Your task to perform on an android device: open a bookmark in the chrome app Image 0: 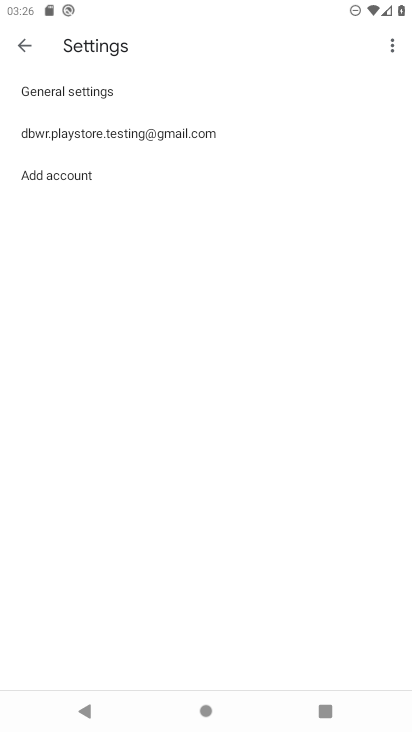
Step 0: press home button
Your task to perform on an android device: open a bookmark in the chrome app Image 1: 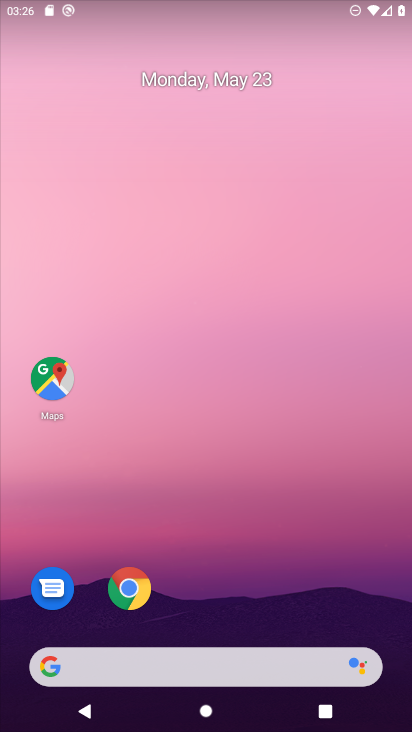
Step 1: click (132, 590)
Your task to perform on an android device: open a bookmark in the chrome app Image 2: 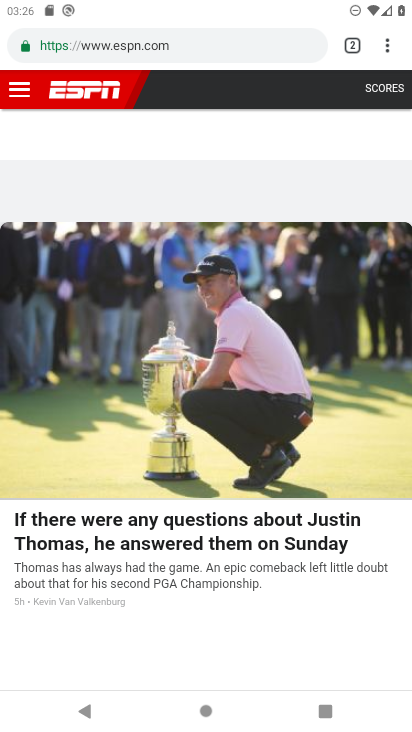
Step 2: click (389, 47)
Your task to perform on an android device: open a bookmark in the chrome app Image 3: 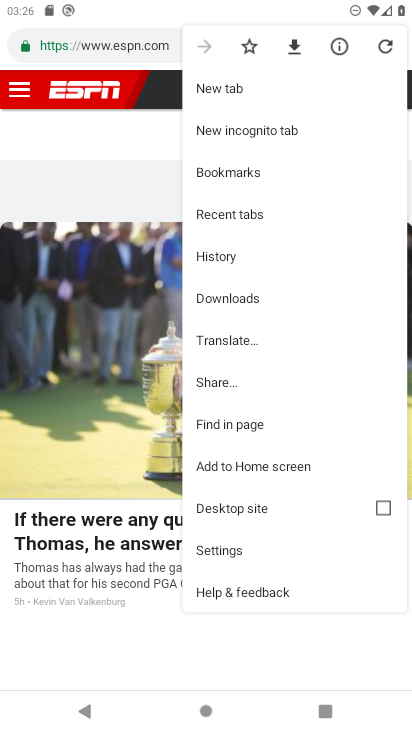
Step 3: click (225, 168)
Your task to perform on an android device: open a bookmark in the chrome app Image 4: 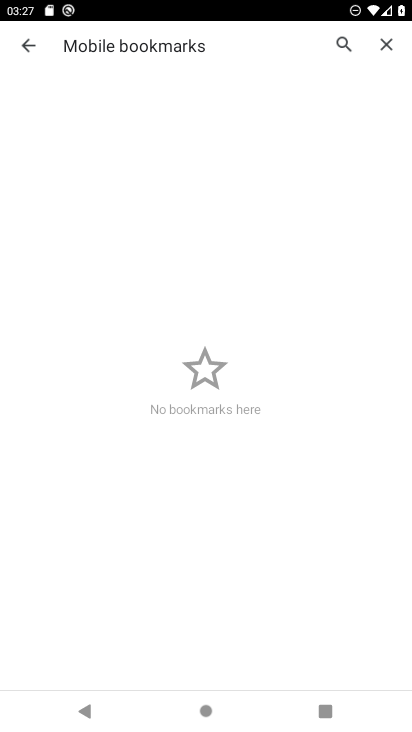
Step 4: task complete